Your task to perform on an android device: Go to Google maps Image 0: 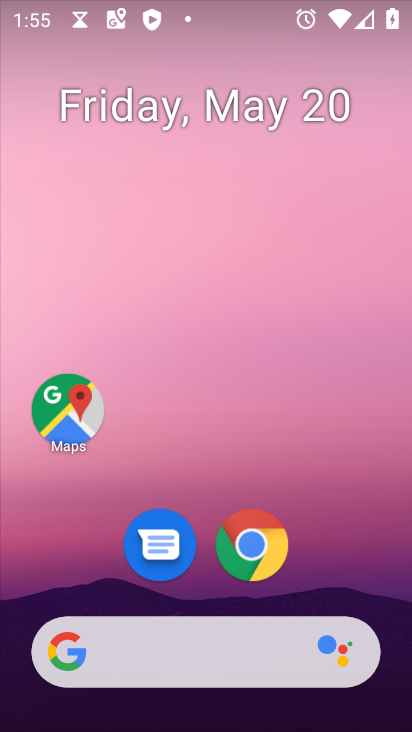
Step 0: click (70, 430)
Your task to perform on an android device: Go to Google maps Image 1: 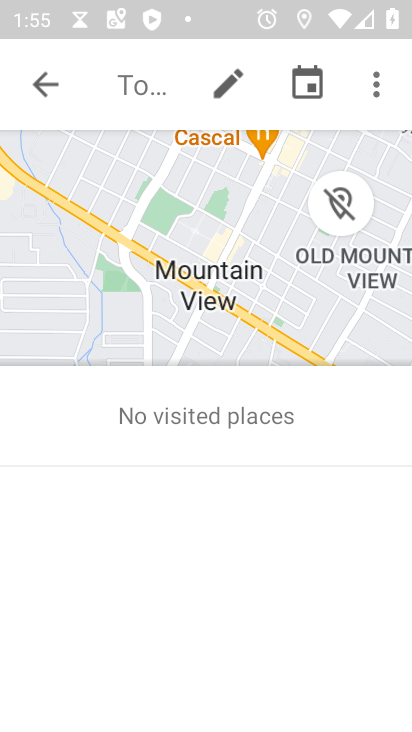
Step 1: task complete